Your task to perform on an android device: Show me popular videos on Youtube Image 0: 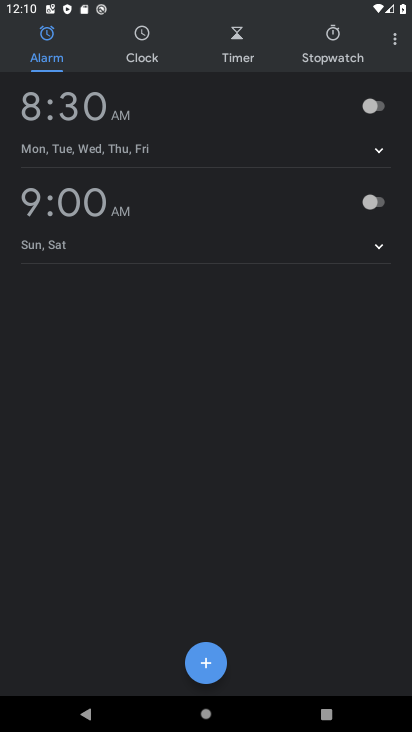
Step 0: press home button
Your task to perform on an android device: Show me popular videos on Youtube Image 1: 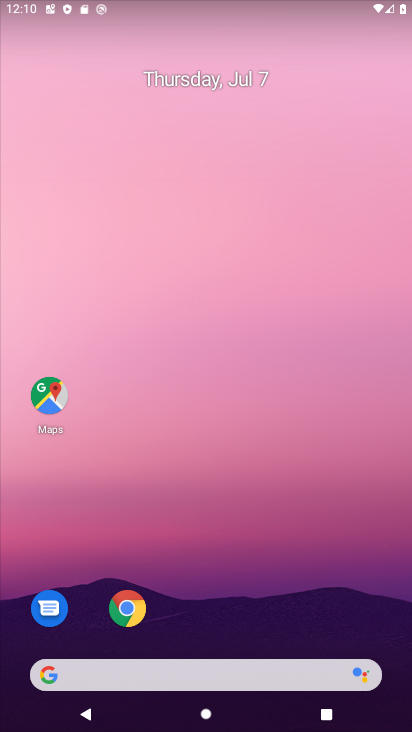
Step 1: drag from (199, 667) to (238, 122)
Your task to perform on an android device: Show me popular videos on Youtube Image 2: 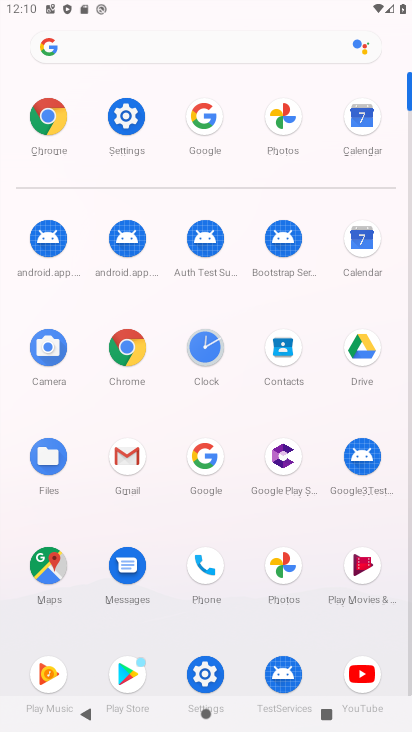
Step 2: click (357, 666)
Your task to perform on an android device: Show me popular videos on Youtube Image 3: 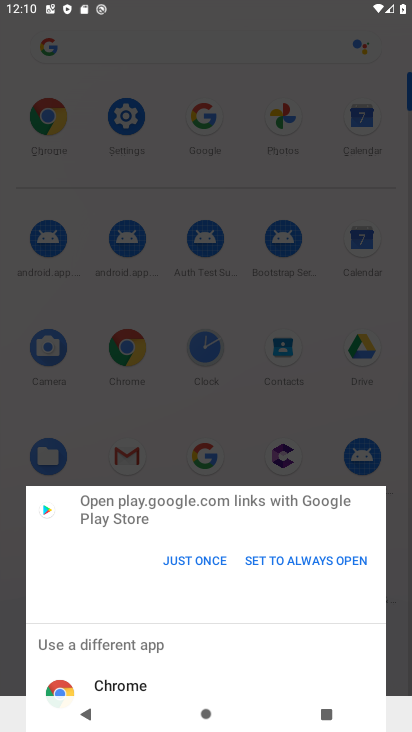
Step 3: click (207, 553)
Your task to perform on an android device: Show me popular videos on Youtube Image 4: 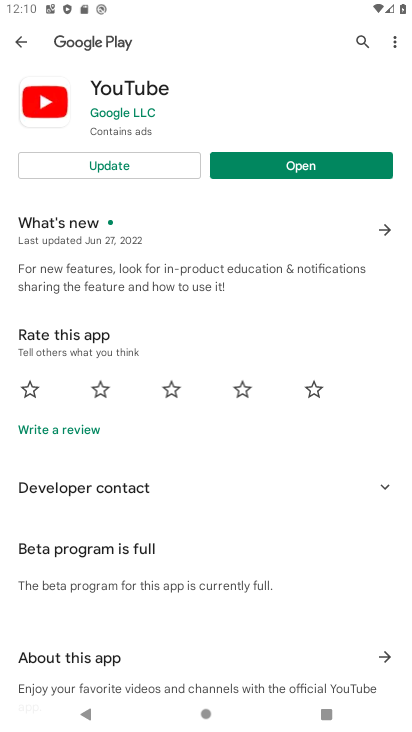
Step 4: click (112, 163)
Your task to perform on an android device: Show me popular videos on Youtube Image 5: 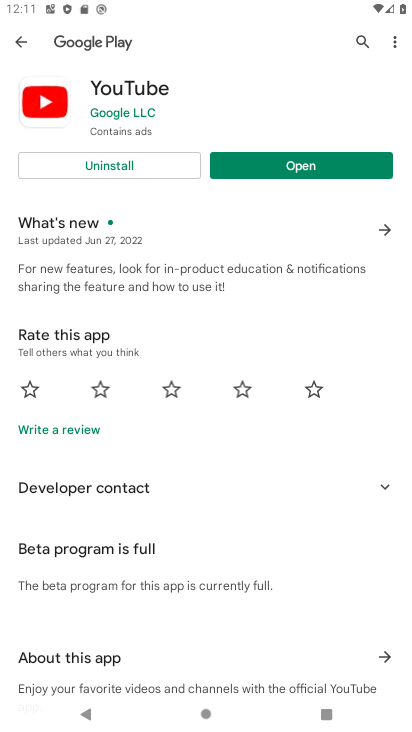
Step 5: click (269, 168)
Your task to perform on an android device: Show me popular videos on Youtube Image 6: 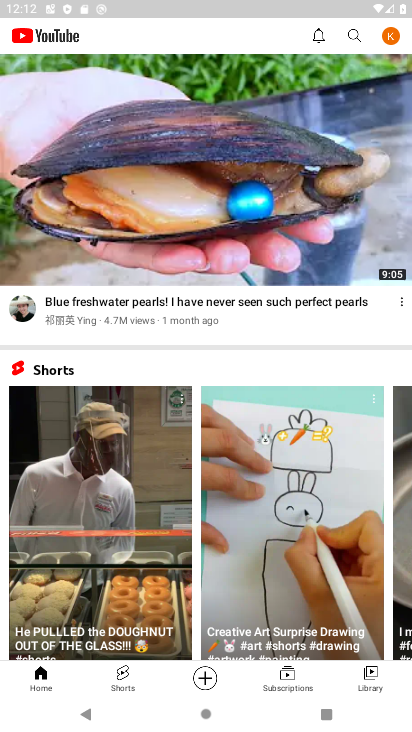
Step 6: task complete